Your task to perform on an android device: turn on sleep mode Image 0: 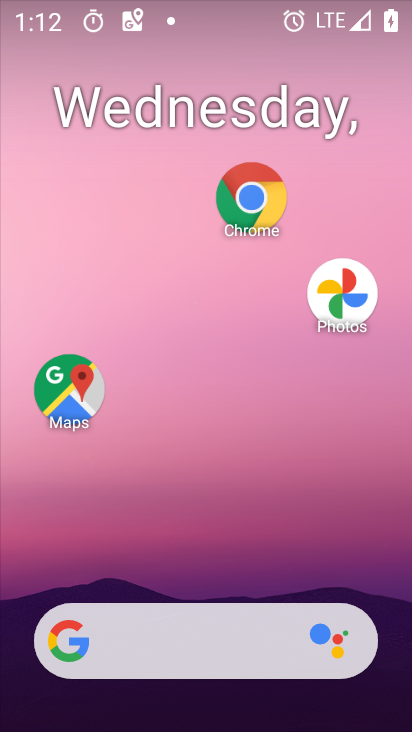
Step 0: drag from (267, 590) to (245, 165)
Your task to perform on an android device: turn on sleep mode Image 1: 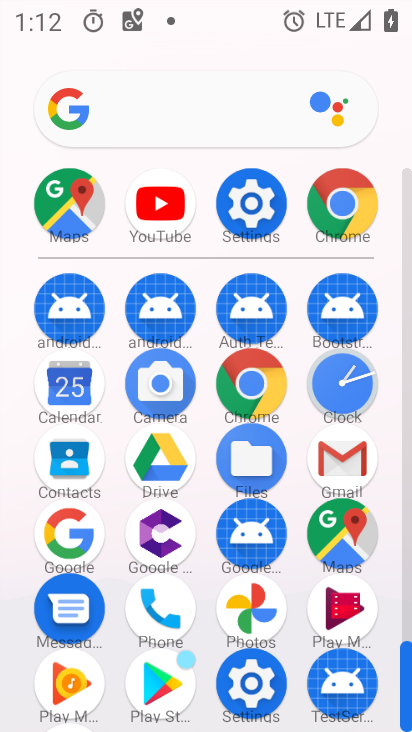
Step 1: click (237, 199)
Your task to perform on an android device: turn on sleep mode Image 2: 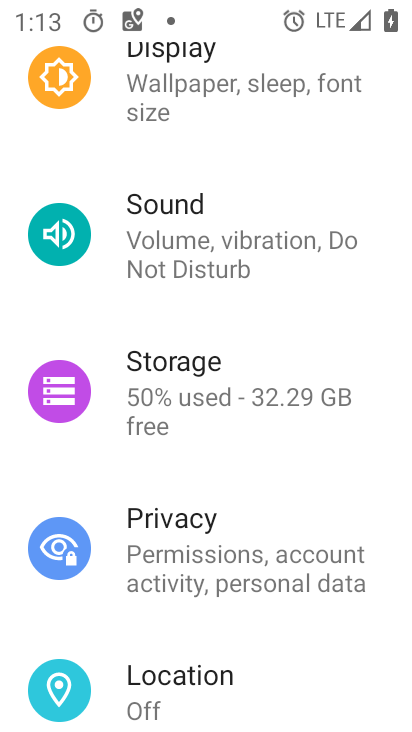
Step 2: drag from (160, 321) to (207, 539)
Your task to perform on an android device: turn on sleep mode Image 3: 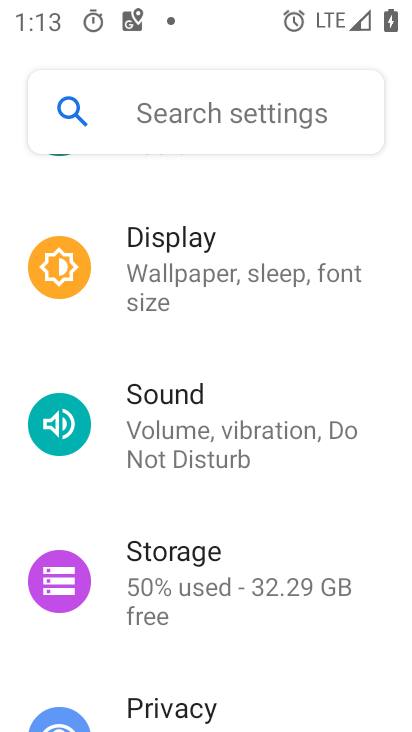
Step 3: click (135, 268)
Your task to perform on an android device: turn on sleep mode Image 4: 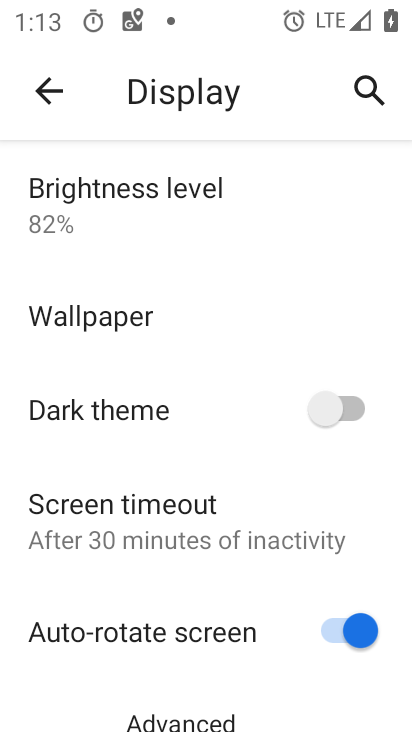
Step 4: drag from (187, 588) to (143, 310)
Your task to perform on an android device: turn on sleep mode Image 5: 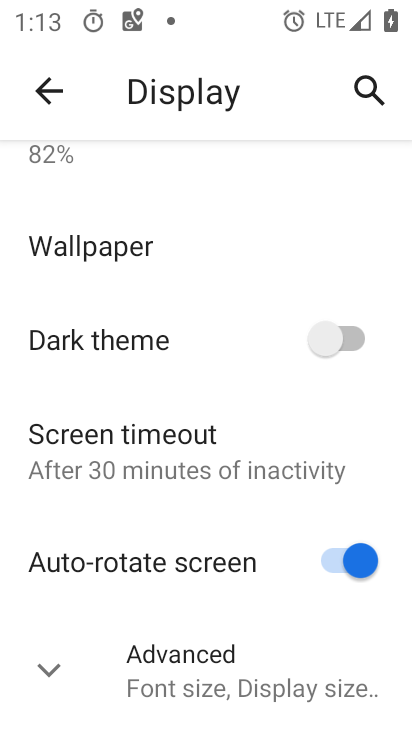
Step 5: click (226, 703)
Your task to perform on an android device: turn on sleep mode Image 6: 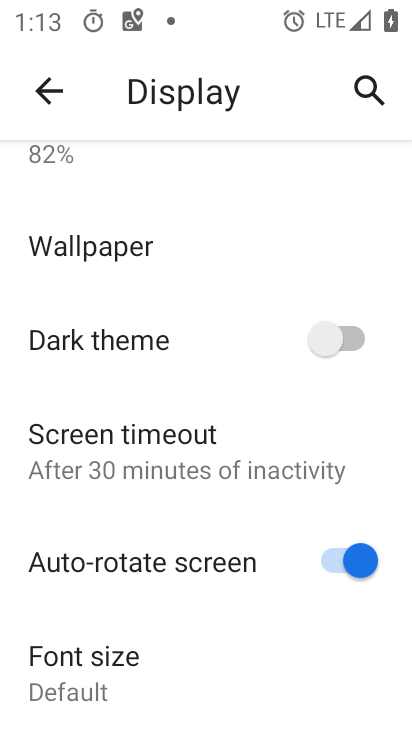
Step 6: task complete